Your task to perform on an android device: open sync settings in chrome Image 0: 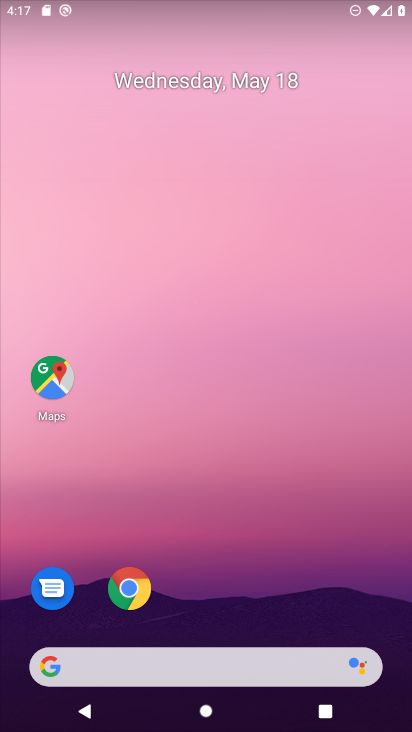
Step 0: click (120, 586)
Your task to perform on an android device: open sync settings in chrome Image 1: 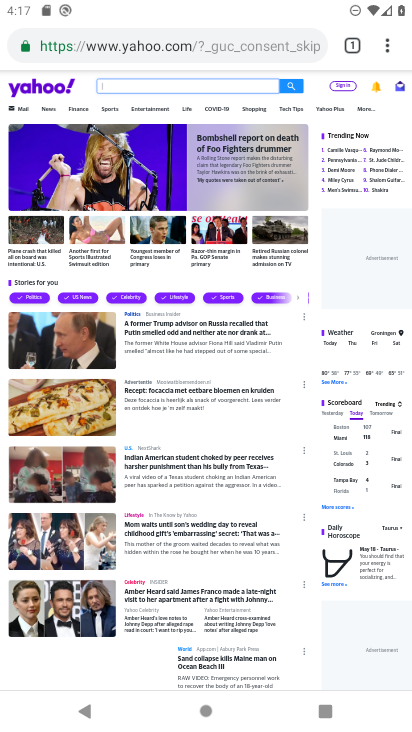
Step 1: click (383, 52)
Your task to perform on an android device: open sync settings in chrome Image 2: 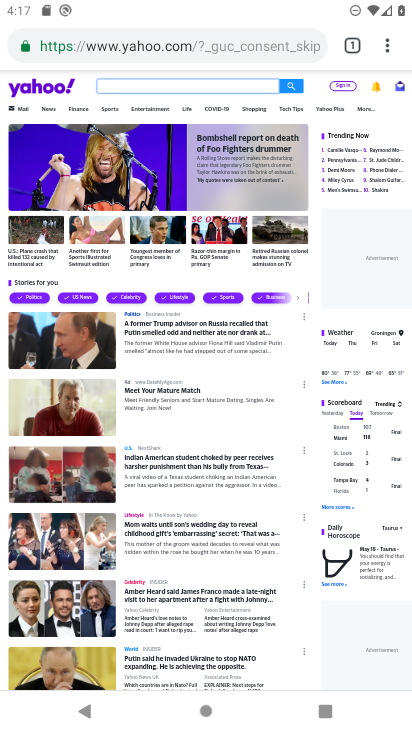
Step 2: click (386, 48)
Your task to perform on an android device: open sync settings in chrome Image 3: 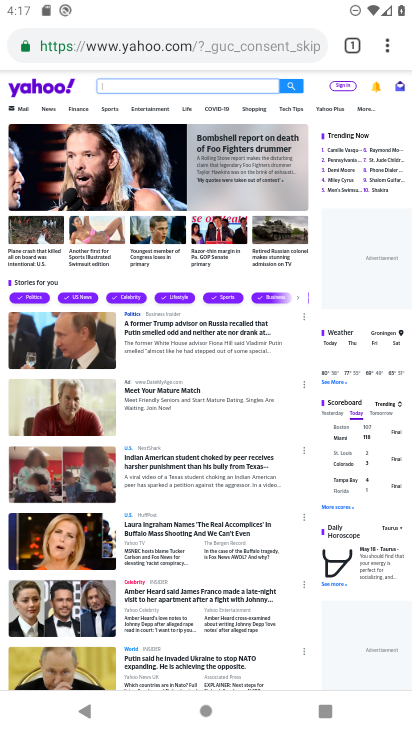
Step 3: click (376, 48)
Your task to perform on an android device: open sync settings in chrome Image 4: 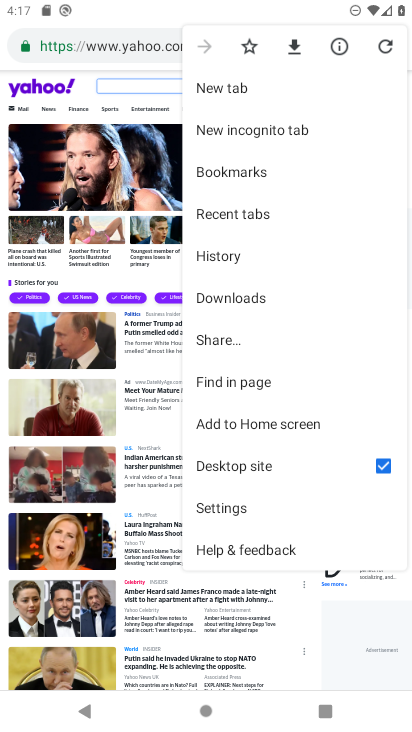
Step 4: click (249, 524)
Your task to perform on an android device: open sync settings in chrome Image 5: 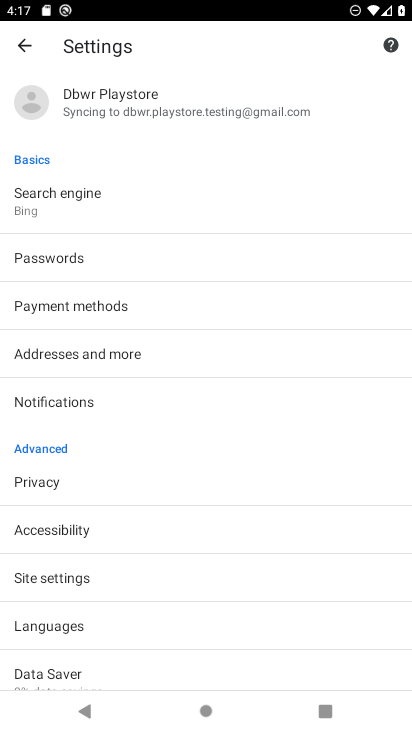
Step 5: click (131, 127)
Your task to perform on an android device: open sync settings in chrome Image 6: 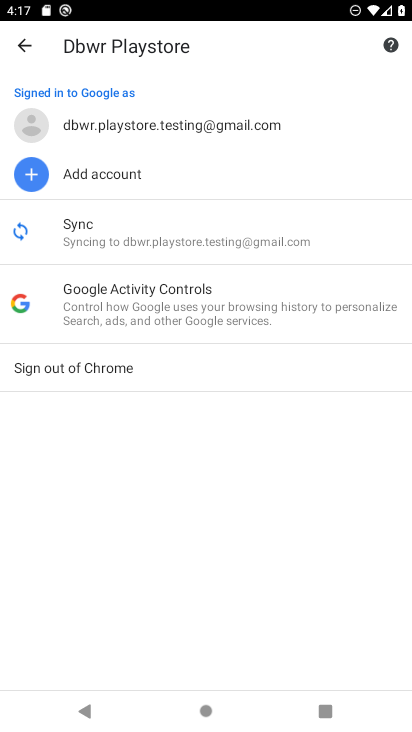
Step 6: click (136, 220)
Your task to perform on an android device: open sync settings in chrome Image 7: 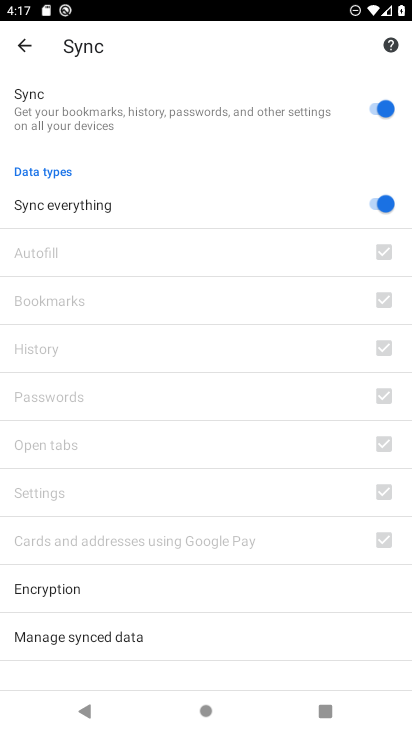
Step 7: task complete